Your task to perform on an android device: turn on notifications settings in the gmail app Image 0: 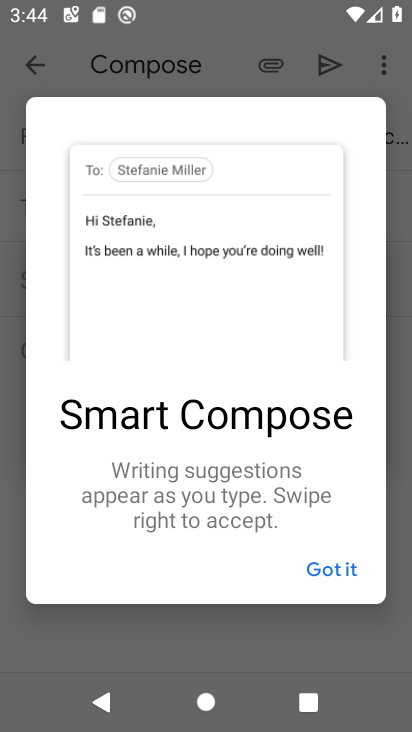
Step 0: press home button
Your task to perform on an android device: turn on notifications settings in the gmail app Image 1: 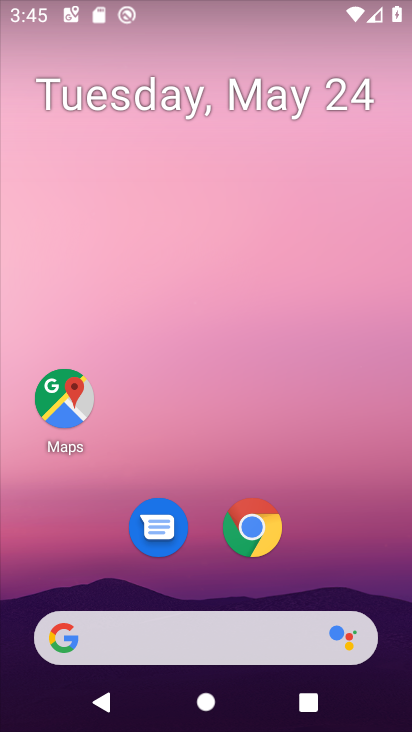
Step 1: drag from (386, 588) to (412, 473)
Your task to perform on an android device: turn on notifications settings in the gmail app Image 2: 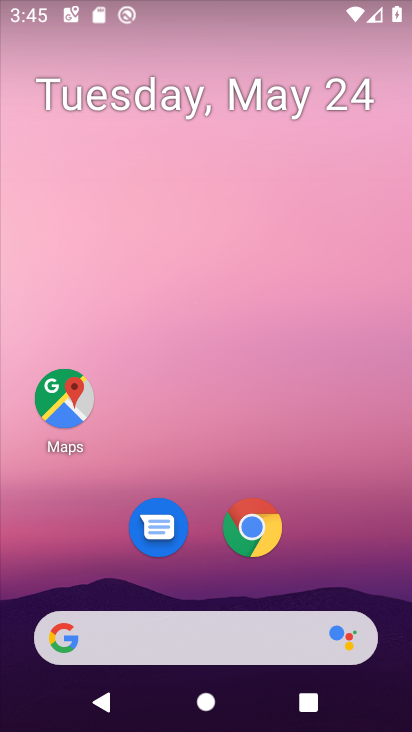
Step 2: drag from (403, 470) to (410, 615)
Your task to perform on an android device: turn on notifications settings in the gmail app Image 3: 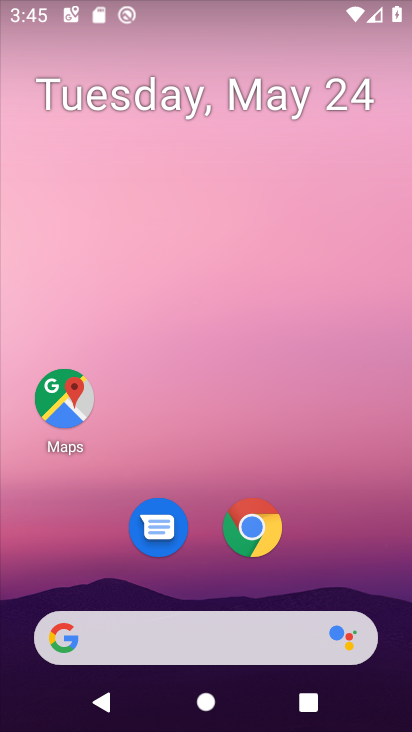
Step 3: drag from (370, 588) to (389, 24)
Your task to perform on an android device: turn on notifications settings in the gmail app Image 4: 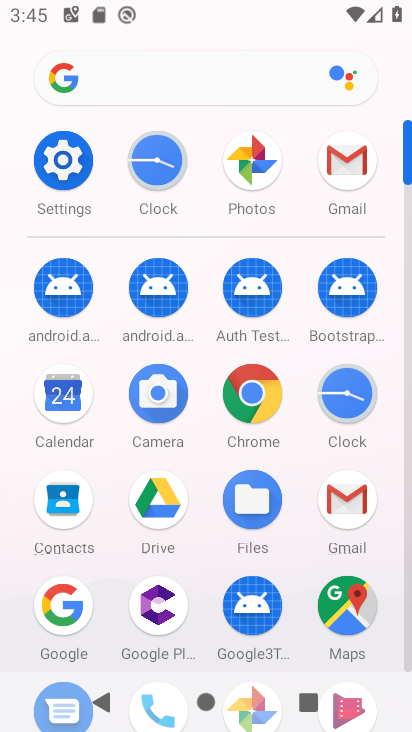
Step 4: click (350, 166)
Your task to perform on an android device: turn on notifications settings in the gmail app Image 5: 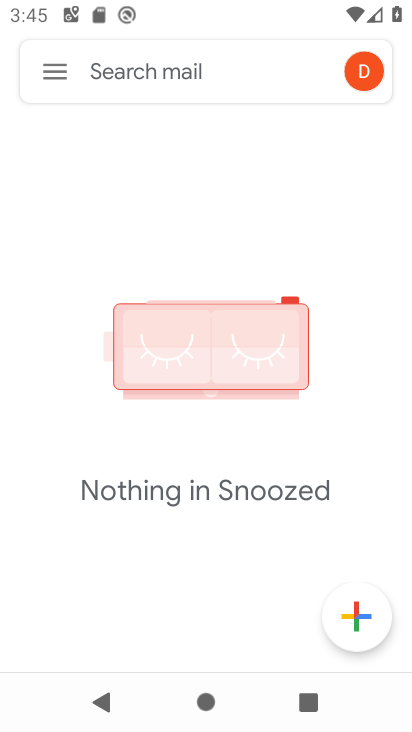
Step 5: click (53, 76)
Your task to perform on an android device: turn on notifications settings in the gmail app Image 6: 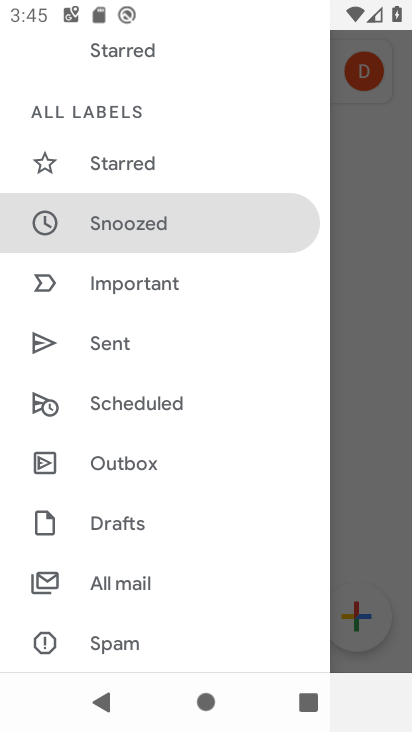
Step 6: drag from (210, 619) to (209, 125)
Your task to perform on an android device: turn on notifications settings in the gmail app Image 7: 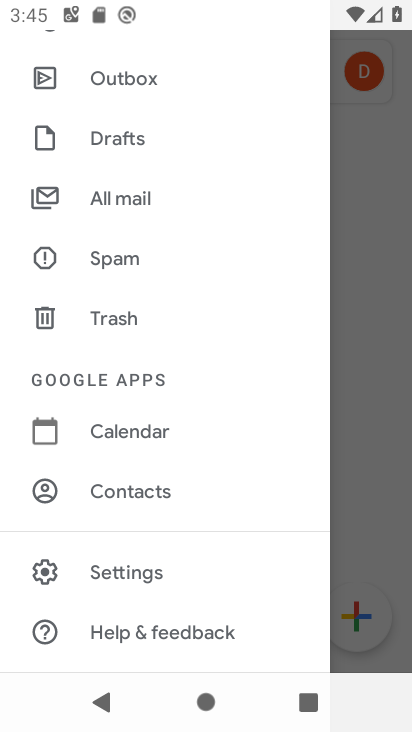
Step 7: click (127, 577)
Your task to perform on an android device: turn on notifications settings in the gmail app Image 8: 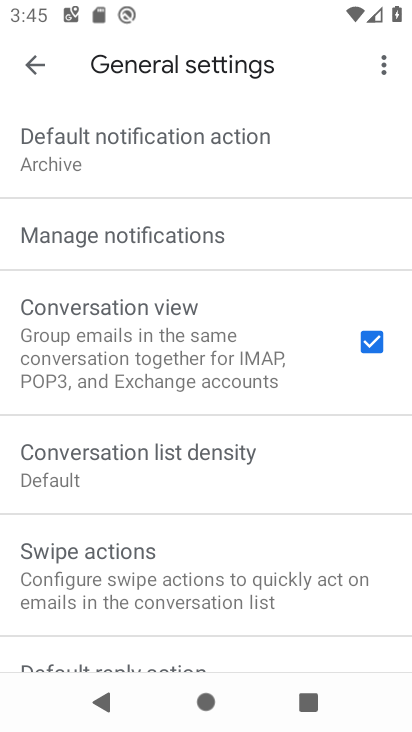
Step 8: click (127, 239)
Your task to perform on an android device: turn on notifications settings in the gmail app Image 9: 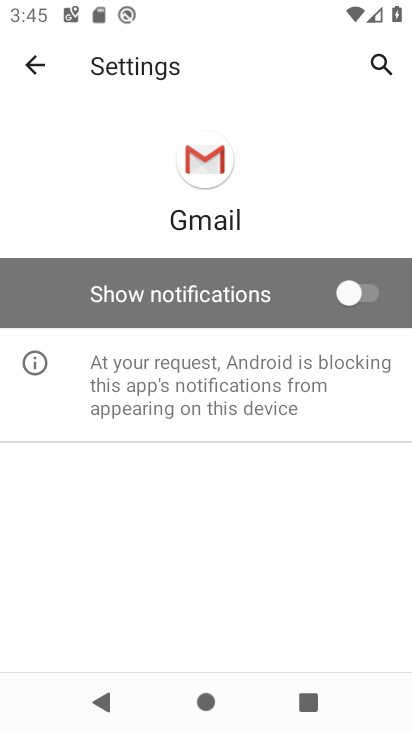
Step 9: click (362, 296)
Your task to perform on an android device: turn on notifications settings in the gmail app Image 10: 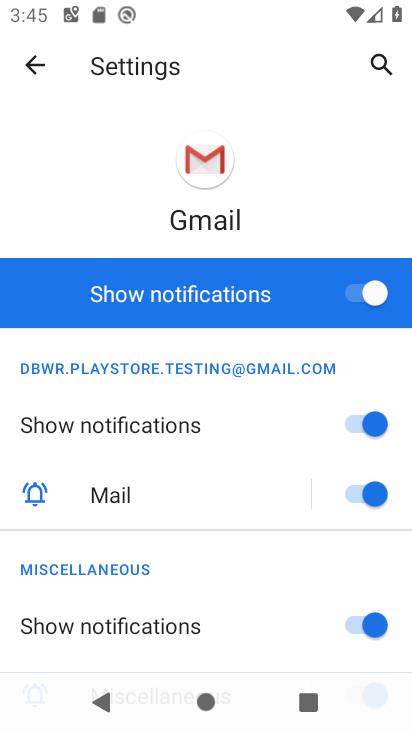
Step 10: task complete